Your task to perform on an android device: Open calendar and show me the first week of next month Image 0: 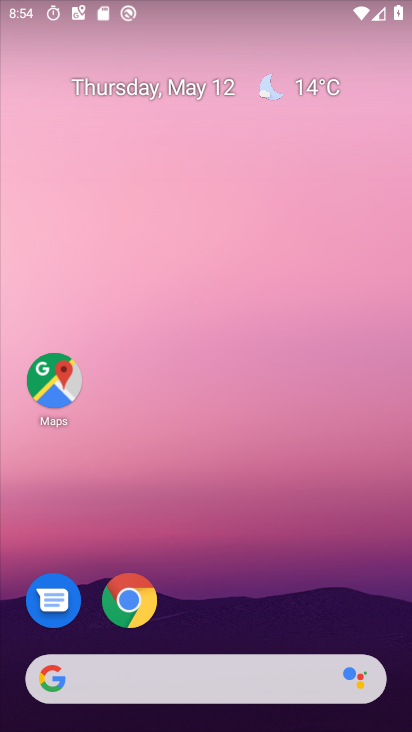
Step 0: drag from (329, 586) to (173, 146)
Your task to perform on an android device: Open calendar and show me the first week of next month Image 1: 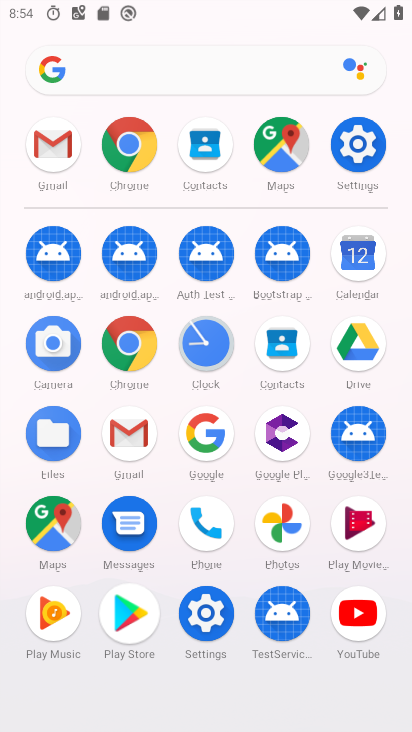
Step 1: click (360, 249)
Your task to perform on an android device: Open calendar and show me the first week of next month Image 2: 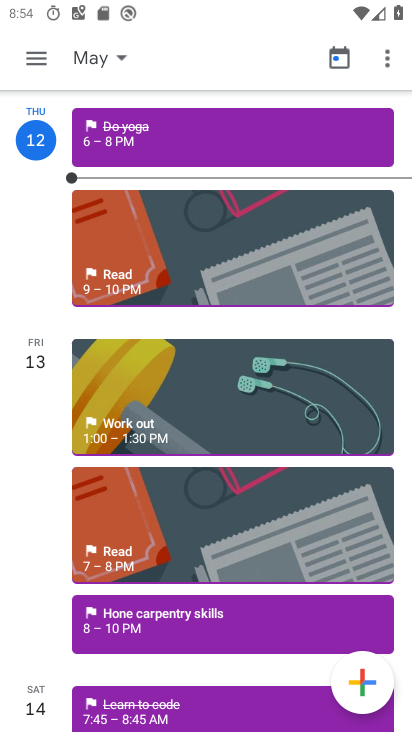
Step 2: drag from (226, 528) to (160, 109)
Your task to perform on an android device: Open calendar and show me the first week of next month Image 3: 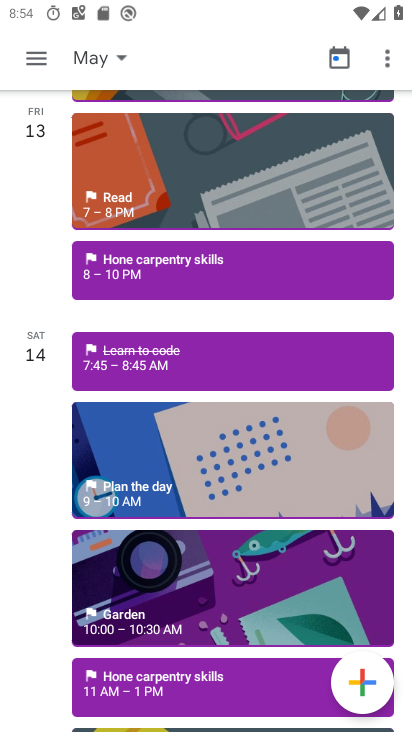
Step 3: drag from (217, 435) to (174, 119)
Your task to perform on an android device: Open calendar and show me the first week of next month Image 4: 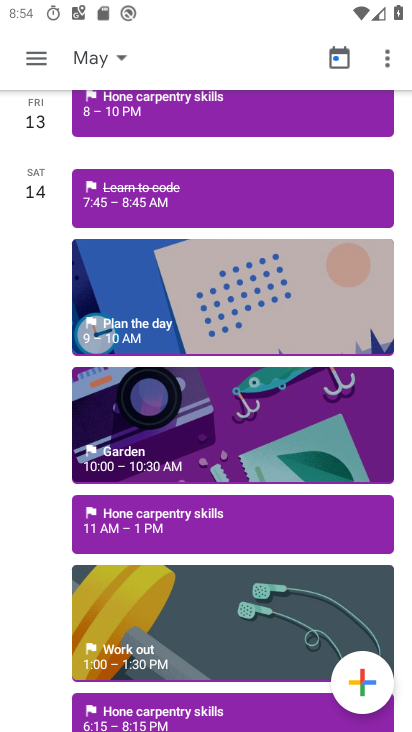
Step 4: drag from (106, 120) to (217, 607)
Your task to perform on an android device: Open calendar and show me the first week of next month Image 5: 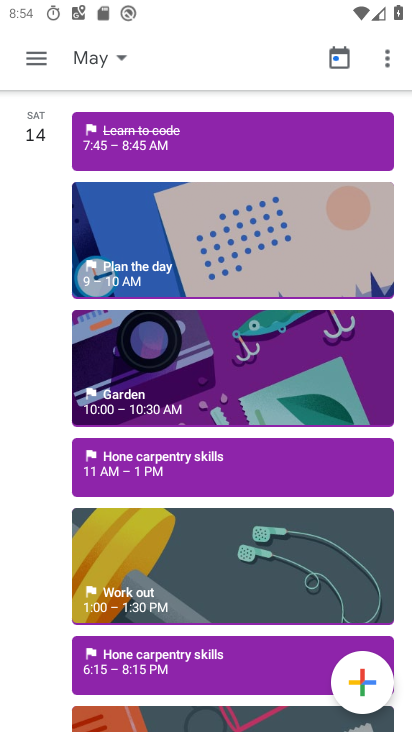
Step 5: drag from (137, 194) to (153, 399)
Your task to perform on an android device: Open calendar and show me the first week of next month Image 6: 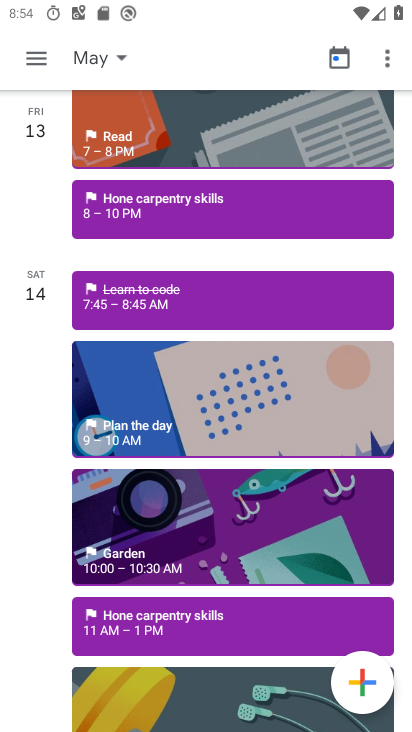
Step 6: click (118, 63)
Your task to perform on an android device: Open calendar and show me the first week of next month Image 7: 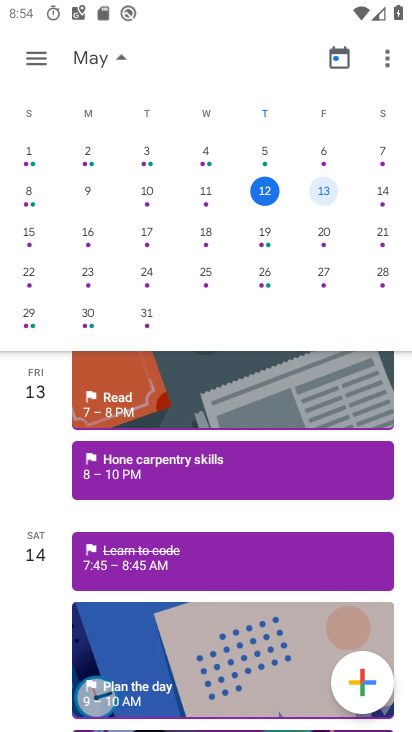
Step 7: drag from (297, 223) to (3, 241)
Your task to perform on an android device: Open calendar and show me the first week of next month Image 8: 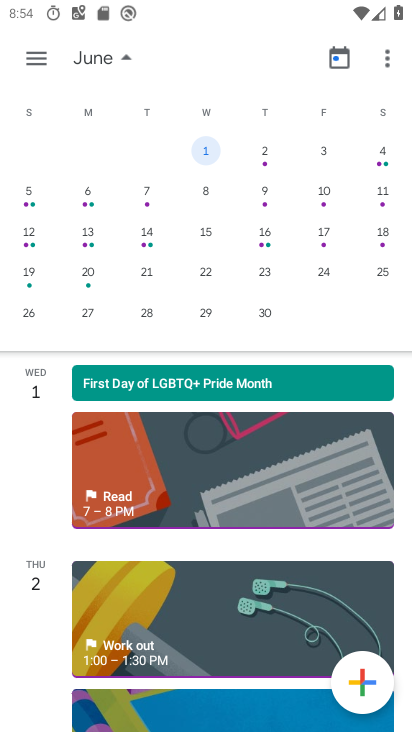
Step 8: drag from (295, 205) to (12, 188)
Your task to perform on an android device: Open calendar and show me the first week of next month Image 9: 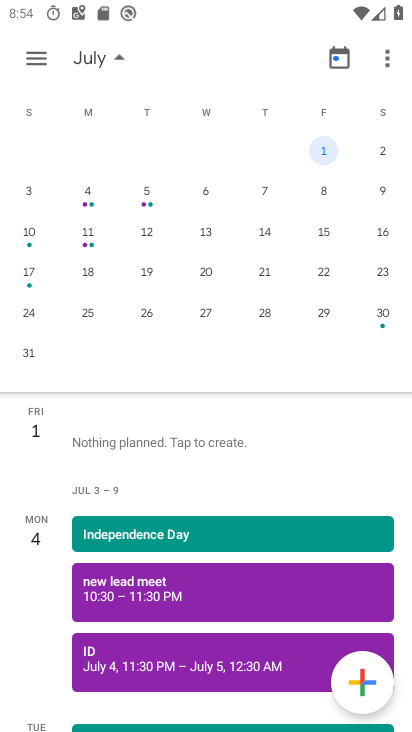
Step 9: drag from (54, 209) to (401, 300)
Your task to perform on an android device: Open calendar and show me the first week of next month Image 10: 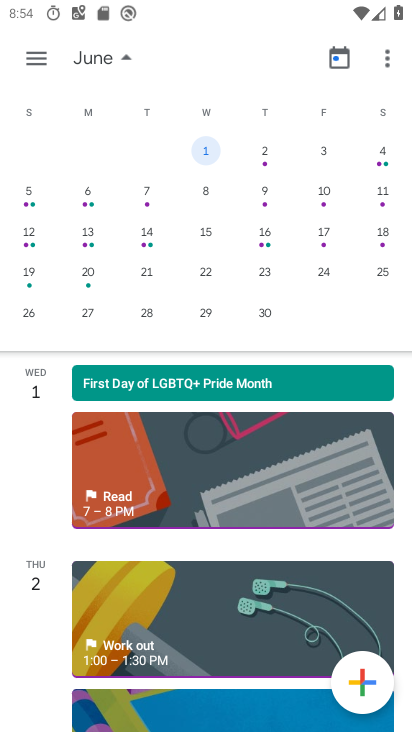
Step 10: click (205, 145)
Your task to perform on an android device: Open calendar and show me the first week of next month Image 11: 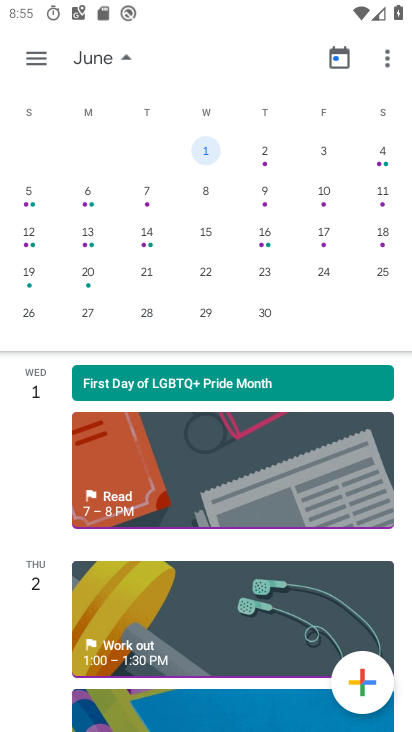
Step 11: task complete